Your task to perform on an android device: Search for the best rated electric lawnmower on Home Depot Image 0: 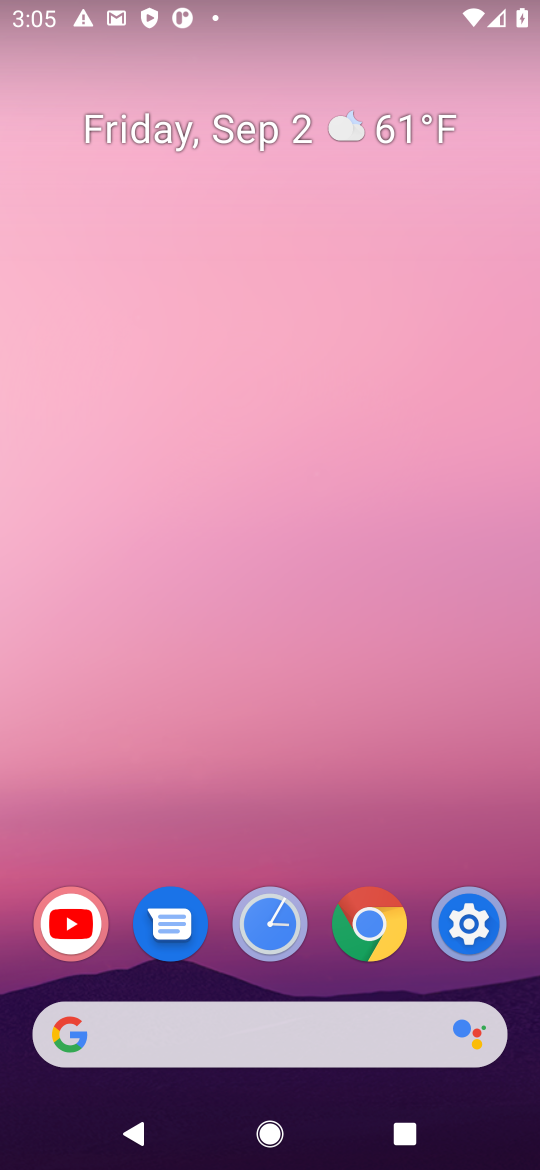
Step 0: press home button
Your task to perform on an android device: Search for the best rated electric lawnmower on Home Depot Image 1: 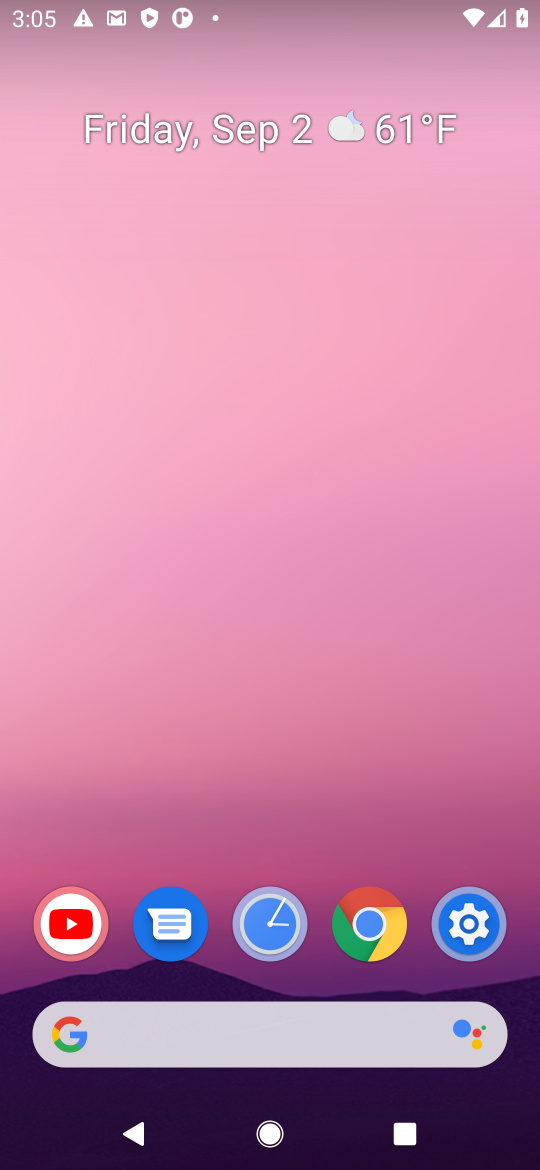
Step 1: click (404, 1023)
Your task to perform on an android device: Search for the best rated electric lawnmower on Home Depot Image 2: 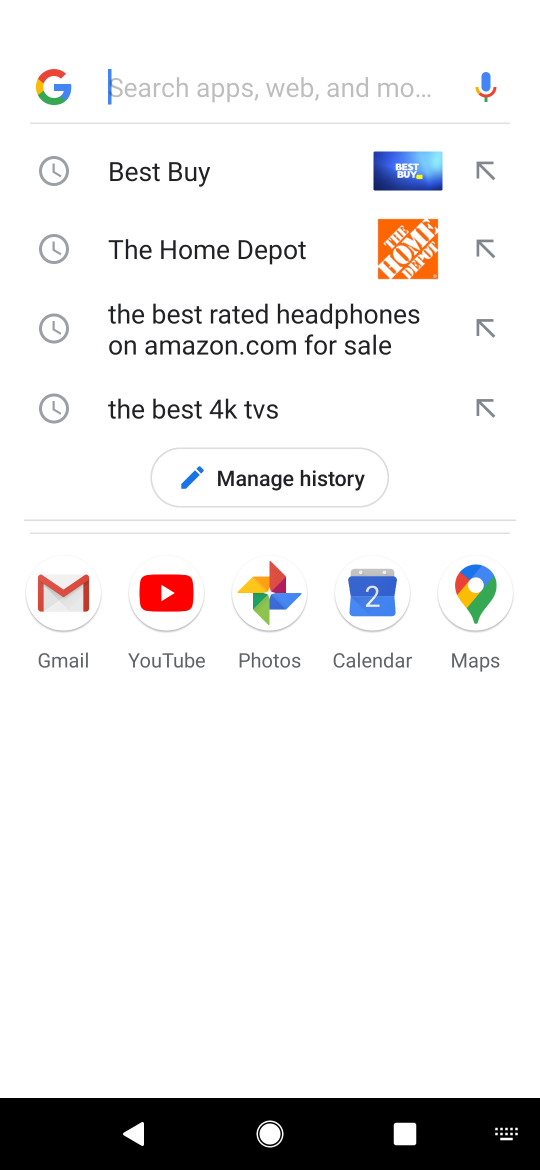
Step 2: press enter
Your task to perform on an android device: Search for the best rated electric lawnmower on Home Depot Image 3: 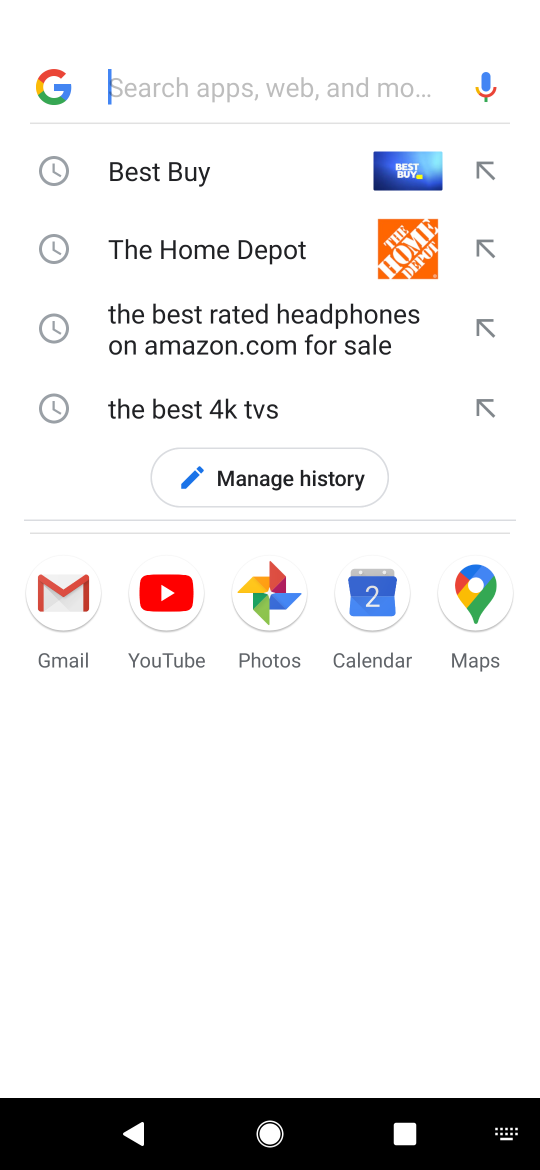
Step 3: type "home depot"
Your task to perform on an android device: Search for the best rated electric lawnmower on Home Depot Image 4: 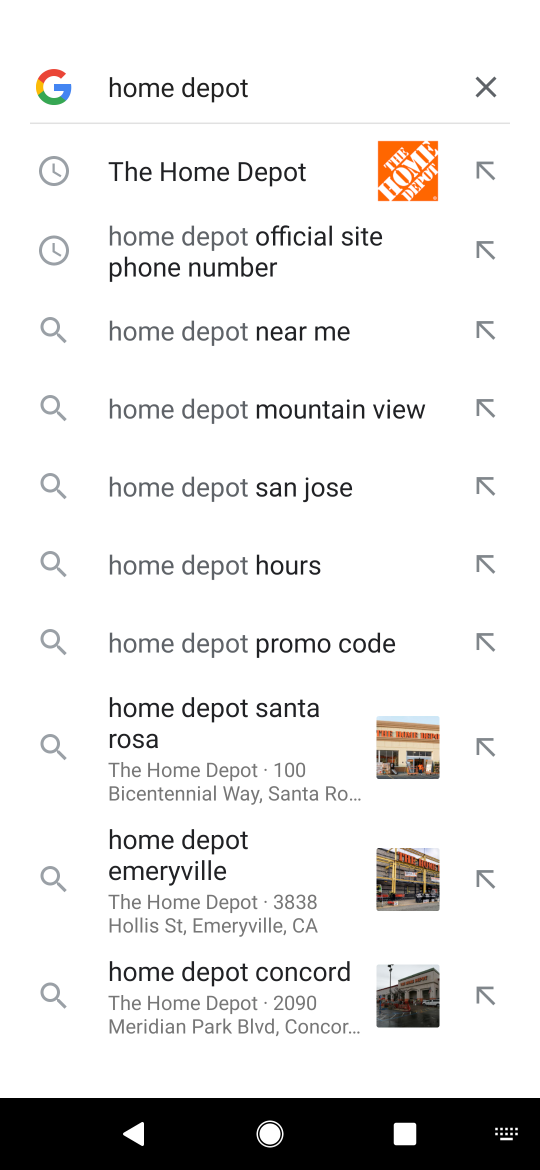
Step 4: click (233, 154)
Your task to perform on an android device: Search for the best rated electric lawnmower on Home Depot Image 5: 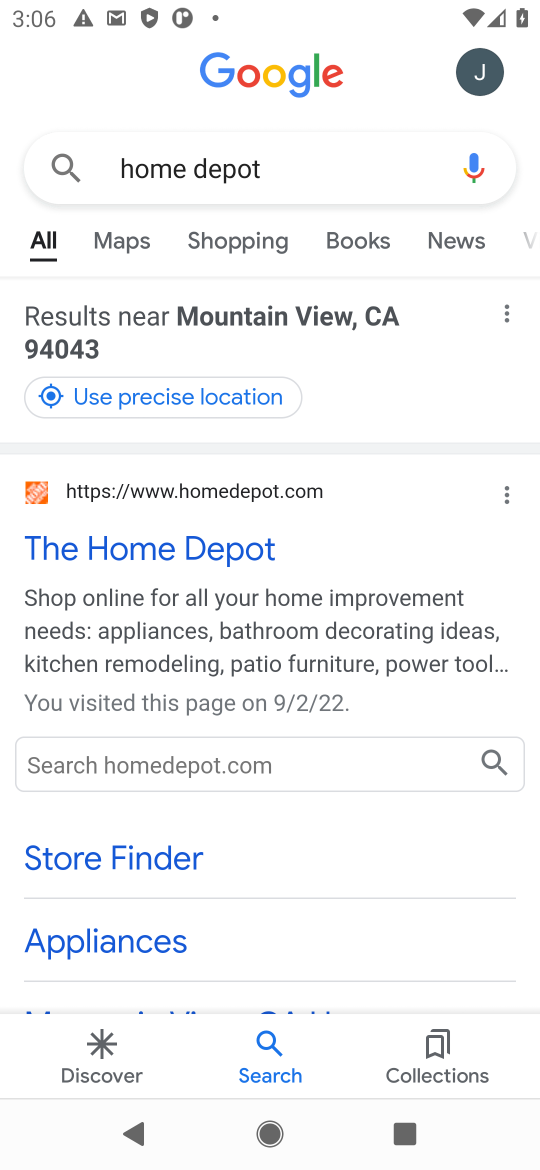
Step 5: click (241, 551)
Your task to perform on an android device: Search for the best rated electric lawnmower on Home Depot Image 6: 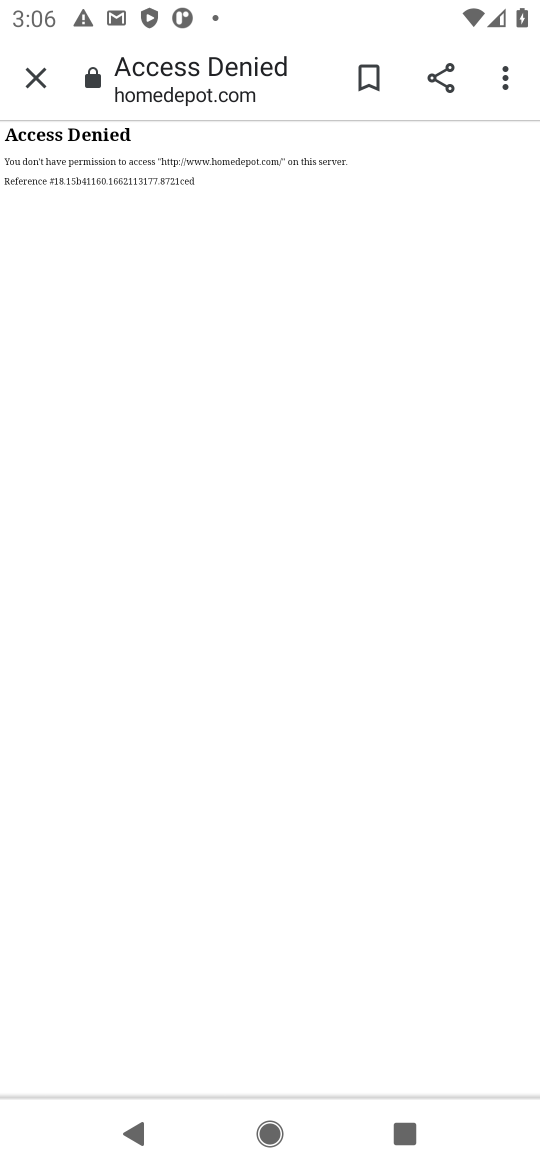
Step 6: task complete